Your task to perform on an android device: Search for vegetarian restaurants on Maps Image 0: 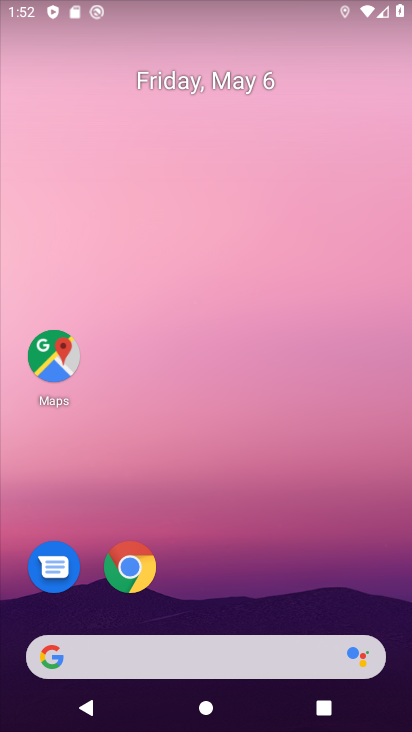
Step 0: click (51, 355)
Your task to perform on an android device: Search for vegetarian restaurants on Maps Image 1: 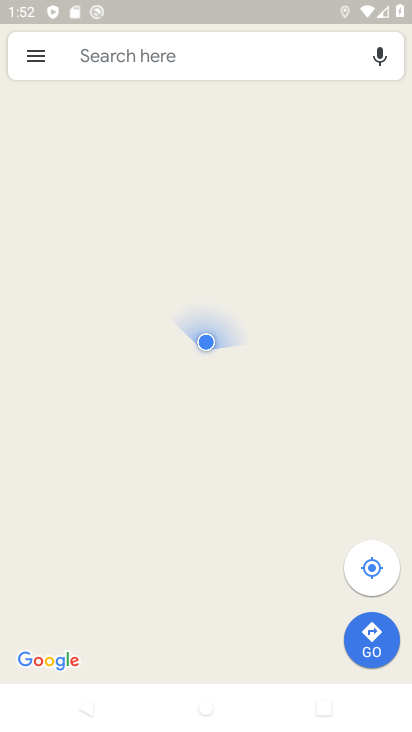
Step 1: click (119, 57)
Your task to perform on an android device: Search for vegetarian restaurants on Maps Image 2: 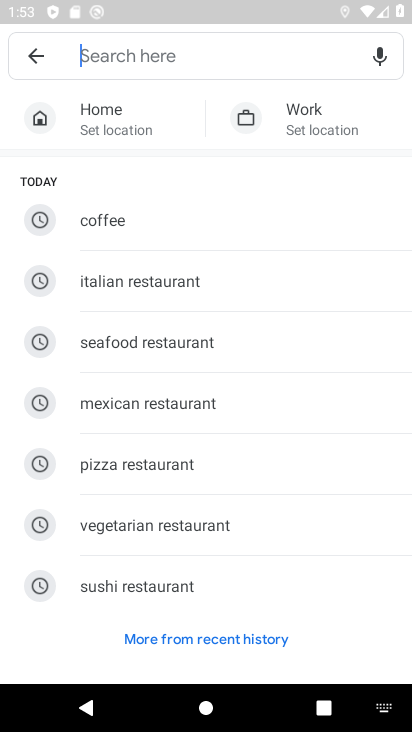
Step 2: type "vegetarian restaurants"
Your task to perform on an android device: Search for vegetarian restaurants on Maps Image 3: 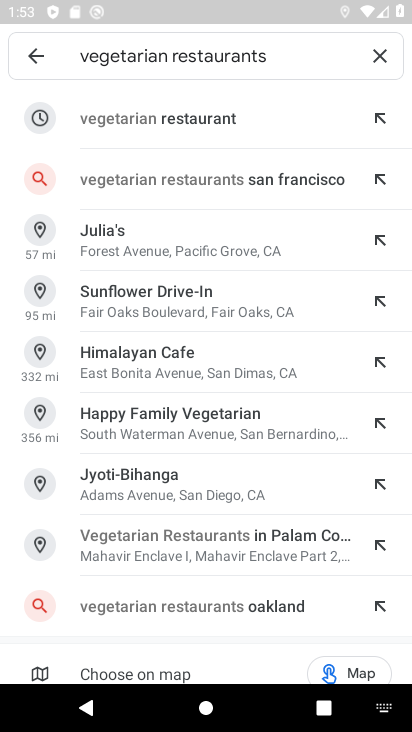
Step 3: click (127, 113)
Your task to perform on an android device: Search for vegetarian restaurants on Maps Image 4: 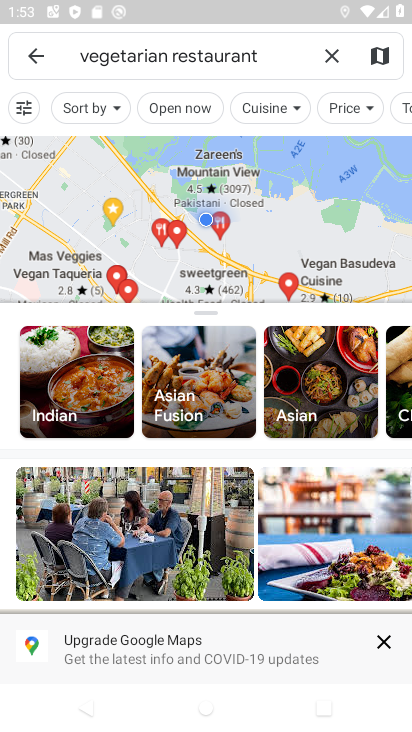
Step 4: task complete